Your task to perform on an android device: Open Google Chrome and open the bookmarks view Image 0: 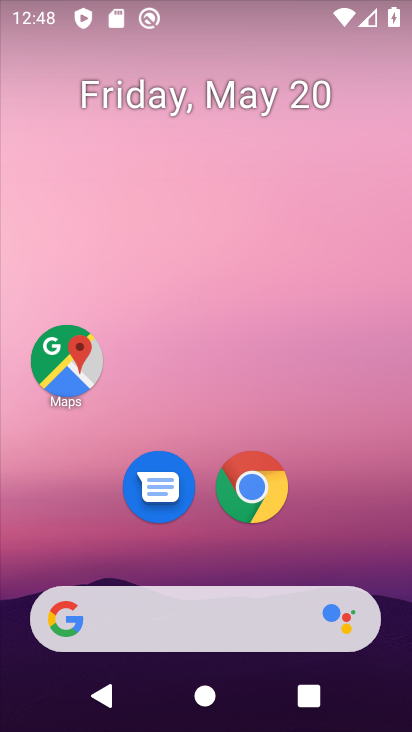
Step 0: click (255, 486)
Your task to perform on an android device: Open Google Chrome and open the bookmarks view Image 1: 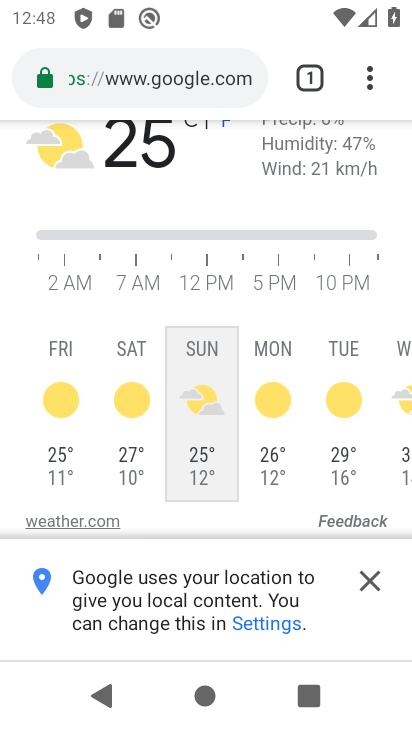
Step 1: click (375, 70)
Your task to perform on an android device: Open Google Chrome and open the bookmarks view Image 2: 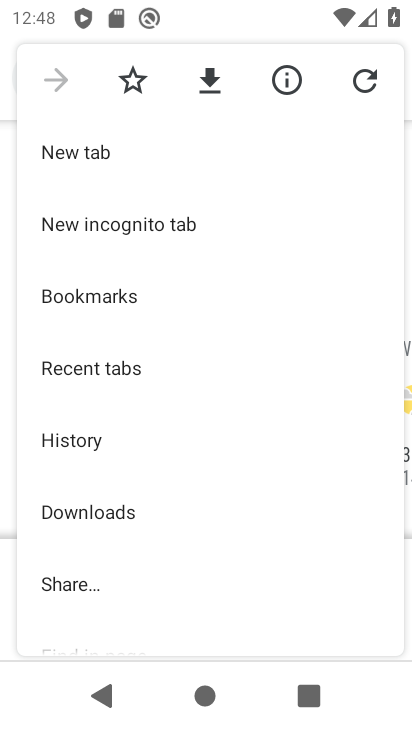
Step 2: click (138, 292)
Your task to perform on an android device: Open Google Chrome and open the bookmarks view Image 3: 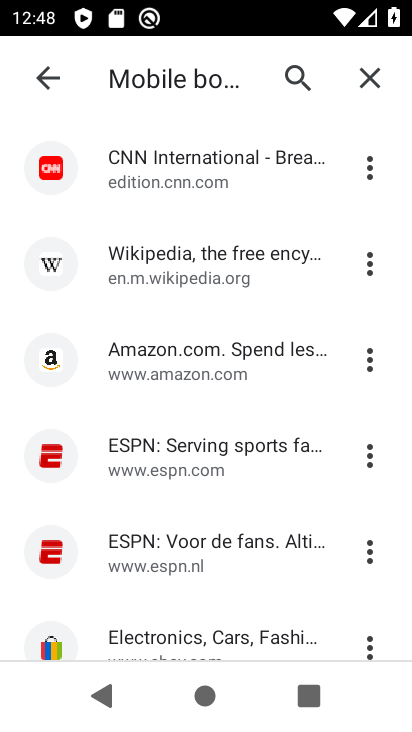
Step 3: task complete